Your task to perform on an android device: Open ESPN.com Image 0: 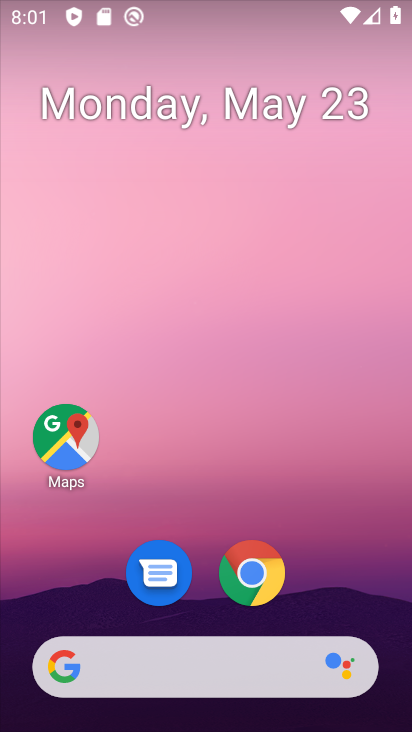
Step 0: click (254, 565)
Your task to perform on an android device: Open ESPN.com Image 1: 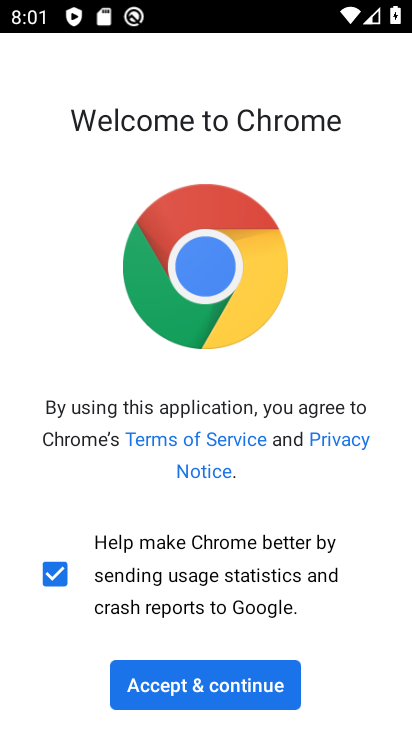
Step 1: click (190, 682)
Your task to perform on an android device: Open ESPN.com Image 2: 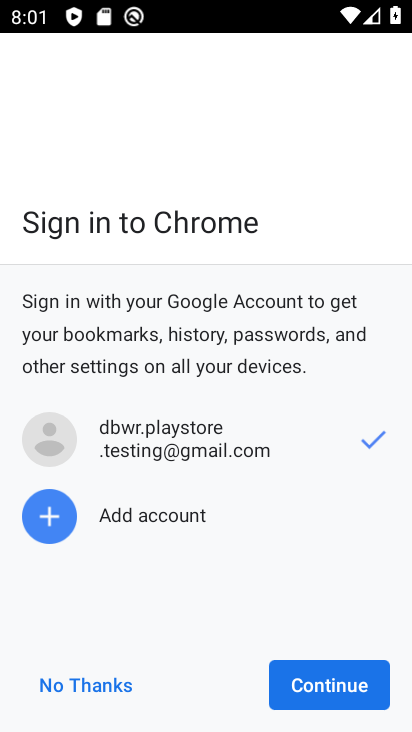
Step 2: click (311, 684)
Your task to perform on an android device: Open ESPN.com Image 3: 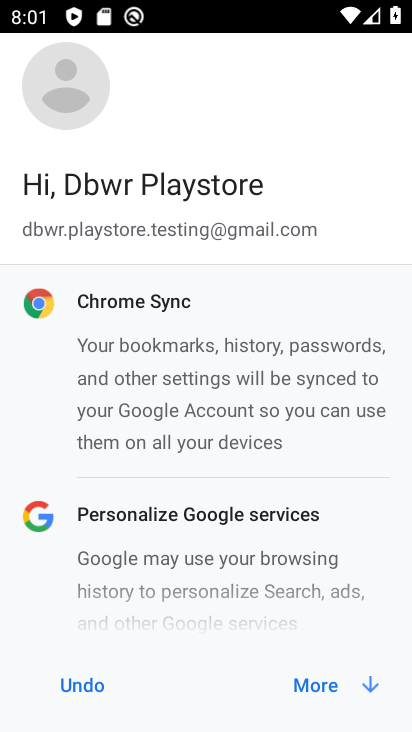
Step 3: click (311, 684)
Your task to perform on an android device: Open ESPN.com Image 4: 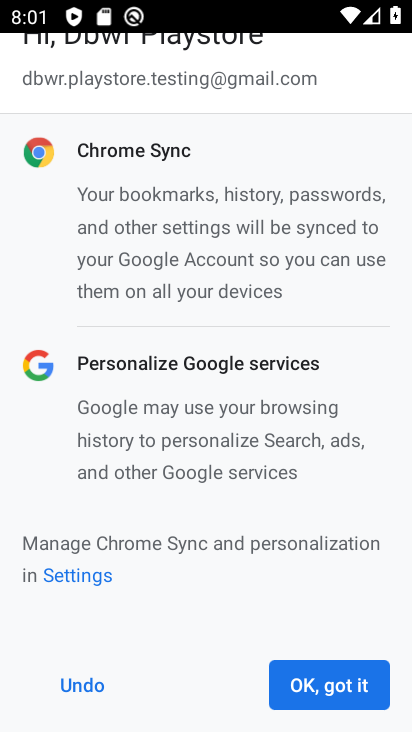
Step 4: click (309, 682)
Your task to perform on an android device: Open ESPN.com Image 5: 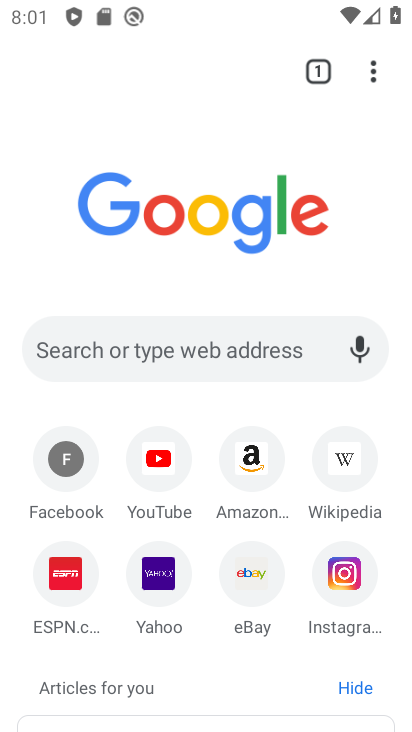
Step 5: click (68, 578)
Your task to perform on an android device: Open ESPN.com Image 6: 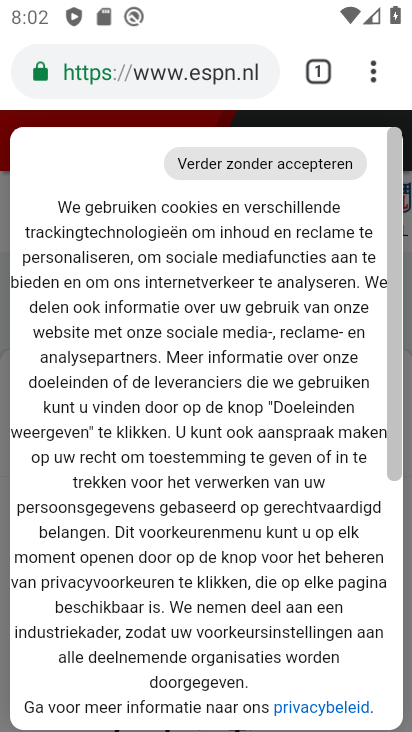
Step 6: drag from (237, 641) to (253, 185)
Your task to perform on an android device: Open ESPN.com Image 7: 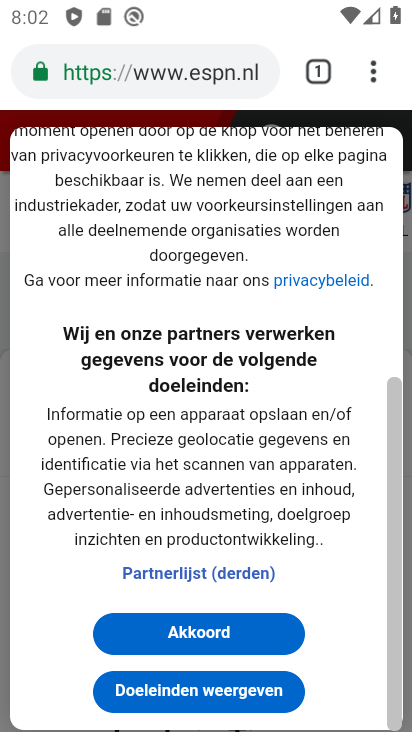
Step 7: click (217, 624)
Your task to perform on an android device: Open ESPN.com Image 8: 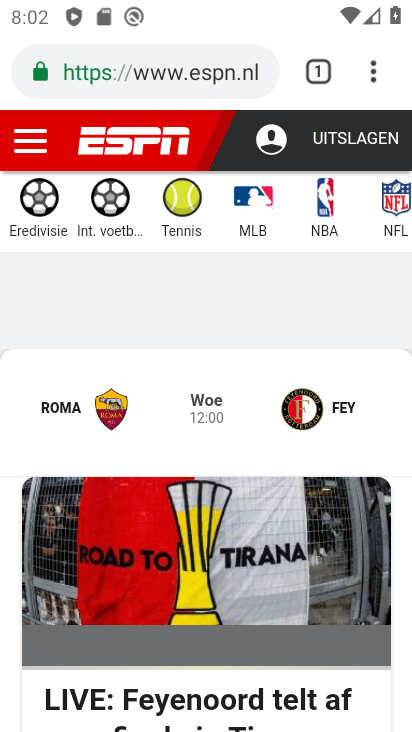
Step 8: task complete